Your task to perform on an android device: toggle show notifications on the lock screen Image 0: 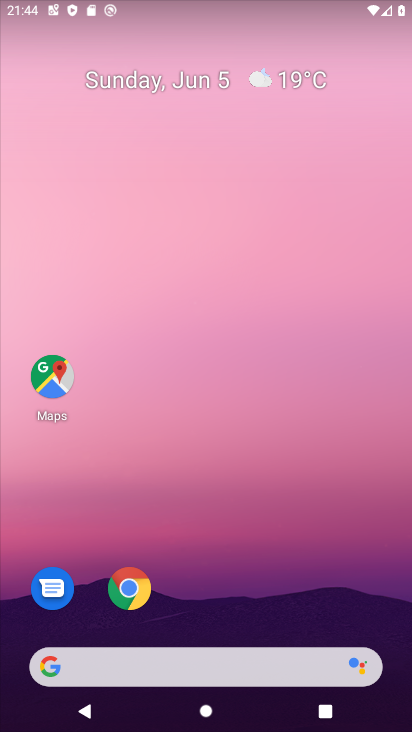
Step 0: drag from (370, 605) to (385, 186)
Your task to perform on an android device: toggle show notifications on the lock screen Image 1: 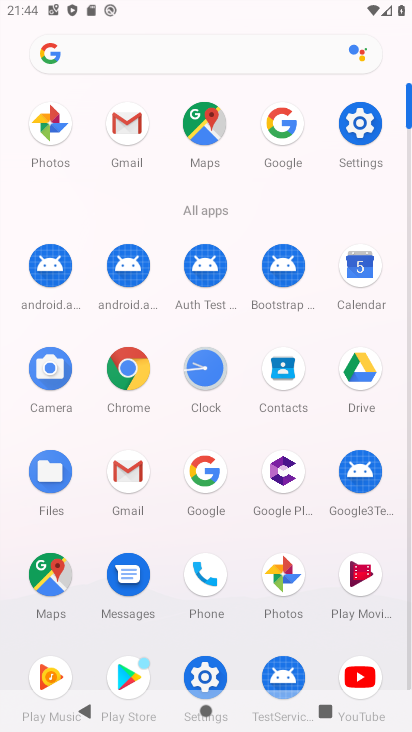
Step 1: click (367, 135)
Your task to perform on an android device: toggle show notifications on the lock screen Image 2: 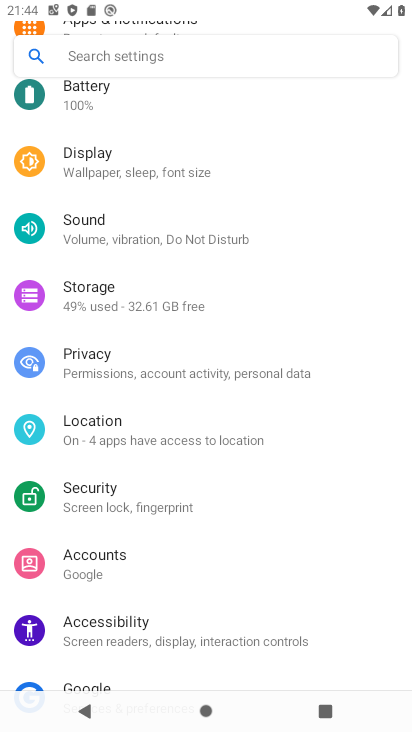
Step 2: drag from (339, 230) to (344, 317)
Your task to perform on an android device: toggle show notifications on the lock screen Image 3: 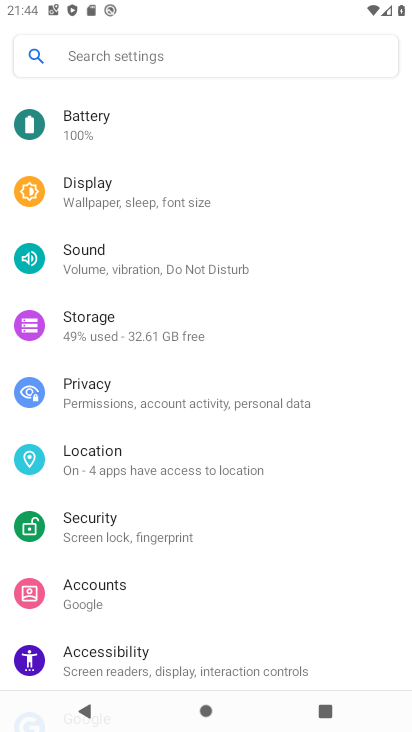
Step 3: drag from (345, 207) to (346, 327)
Your task to perform on an android device: toggle show notifications on the lock screen Image 4: 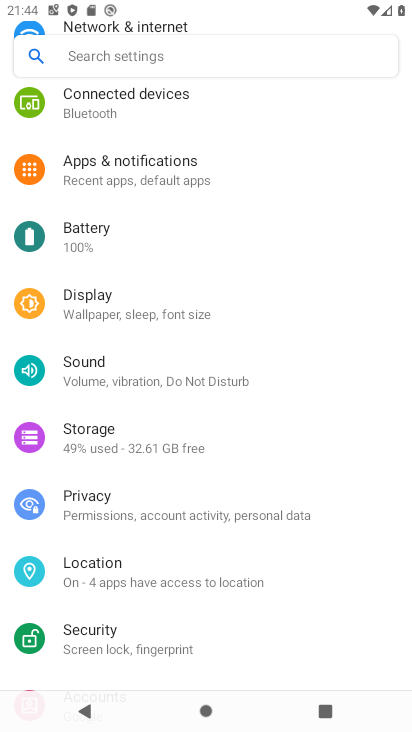
Step 4: drag from (337, 170) to (337, 280)
Your task to perform on an android device: toggle show notifications on the lock screen Image 5: 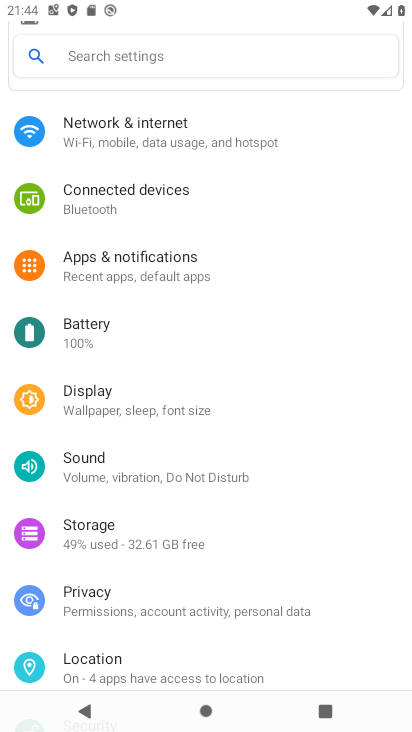
Step 5: drag from (343, 171) to (347, 292)
Your task to perform on an android device: toggle show notifications on the lock screen Image 6: 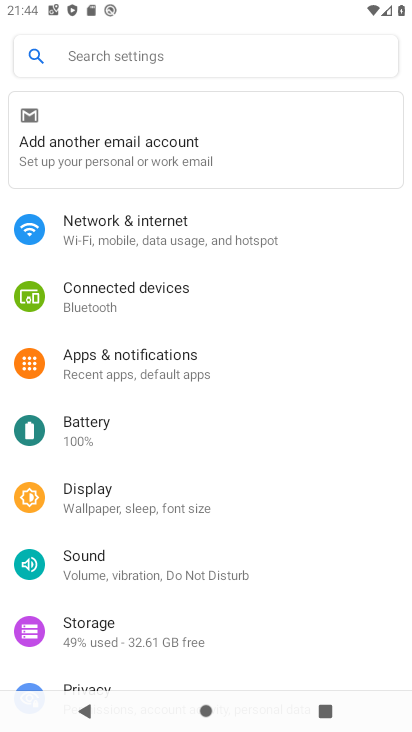
Step 6: click (206, 373)
Your task to perform on an android device: toggle show notifications on the lock screen Image 7: 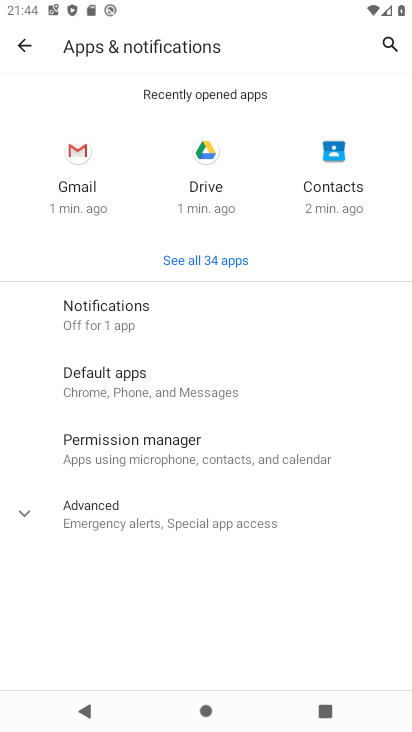
Step 7: click (138, 324)
Your task to perform on an android device: toggle show notifications on the lock screen Image 8: 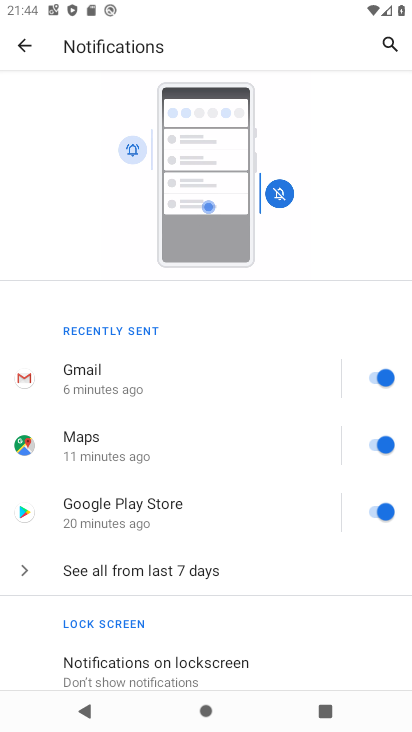
Step 8: drag from (283, 427) to (281, 326)
Your task to perform on an android device: toggle show notifications on the lock screen Image 9: 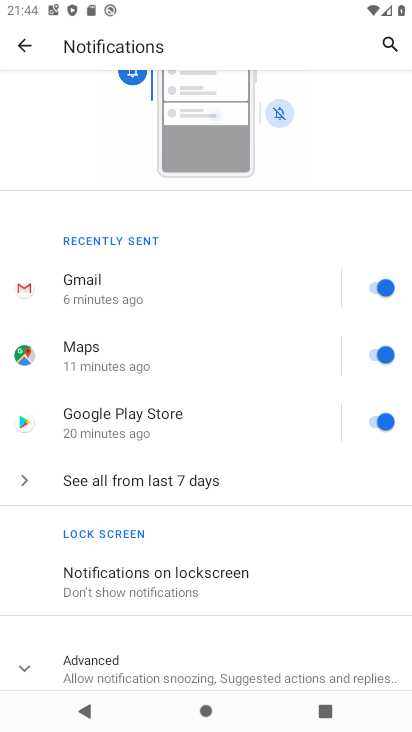
Step 9: drag from (283, 409) to (284, 322)
Your task to perform on an android device: toggle show notifications on the lock screen Image 10: 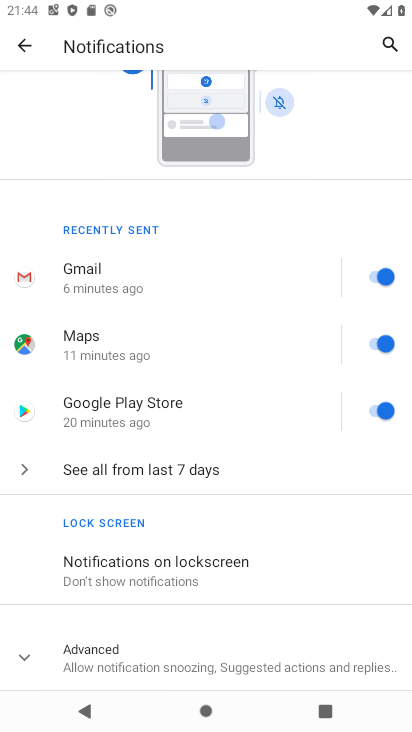
Step 10: click (267, 558)
Your task to perform on an android device: toggle show notifications on the lock screen Image 11: 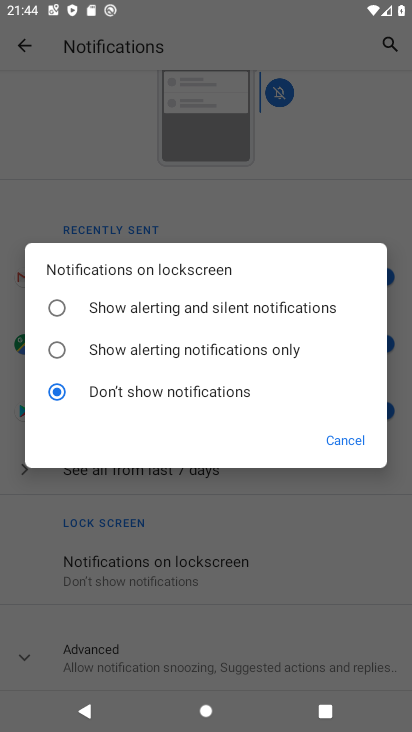
Step 11: click (115, 310)
Your task to perform on an android device: toggle show notifications on the lock screen Image 12: 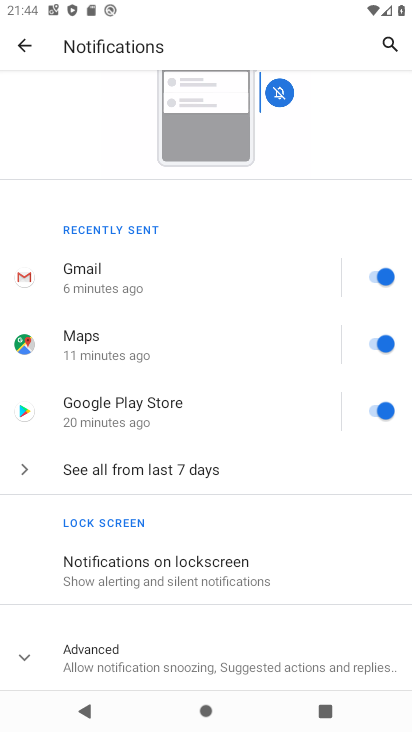
Step 12: task complete